Your task to perform on an android device: Go to display settings Image 0: 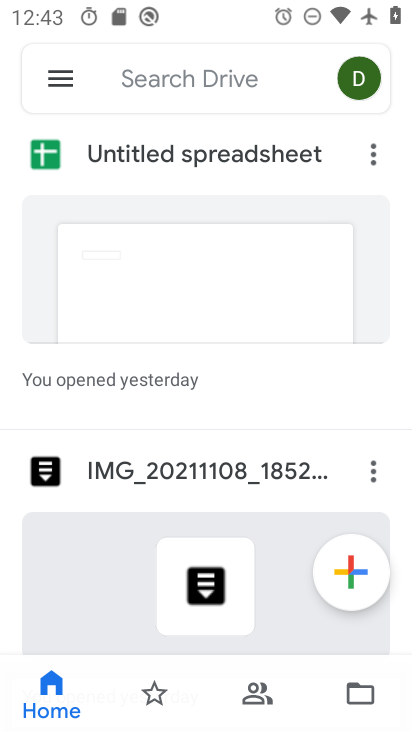
Step 0: press home button
Your task to perform on an android device: Go to display settings Image 1: 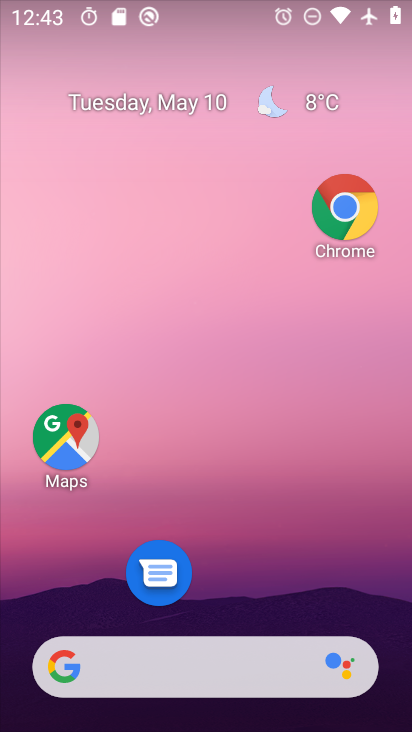
Step 1: drag from (357, 615) to (305, 103)
Your task to perform on an android device: Go to display settings Image 2: 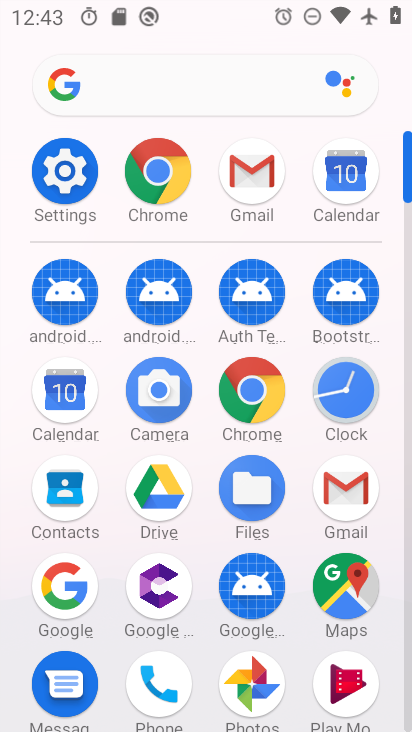
Step 2: click (47, 163)
Your task to perform on an android device: Go to display settings Image 3: 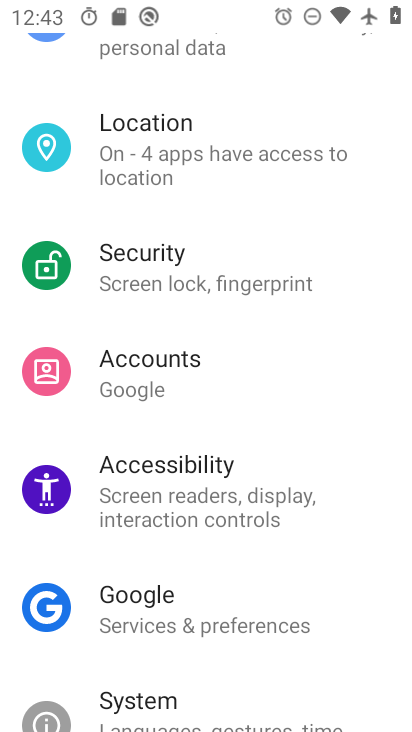
Step 3: drag from (251, 295) to (245, 681)
Your task to perform on an android device: Go to display settings Image 4: 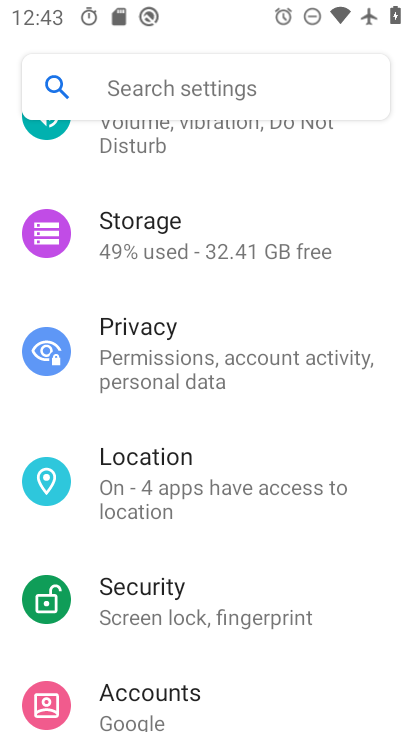
Step 4: drag from (248, 358) to (233, 731)
Your task to perform on an android device: Go to display settings Image 5: 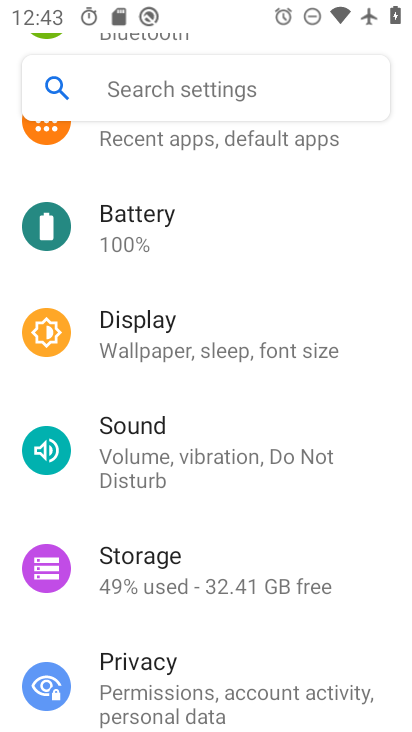
Step 5: click (212, 354)
Your task to perform on an android device: Go to display settings Image 6: 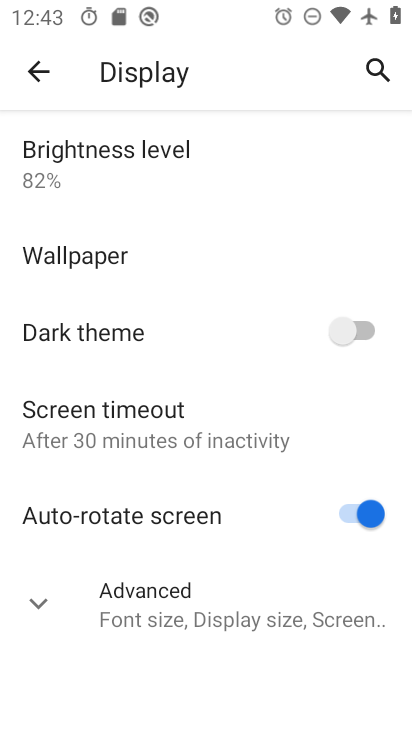
Step 6: task complete